Your task to perform on an android device: Go to Google maps Image 0: 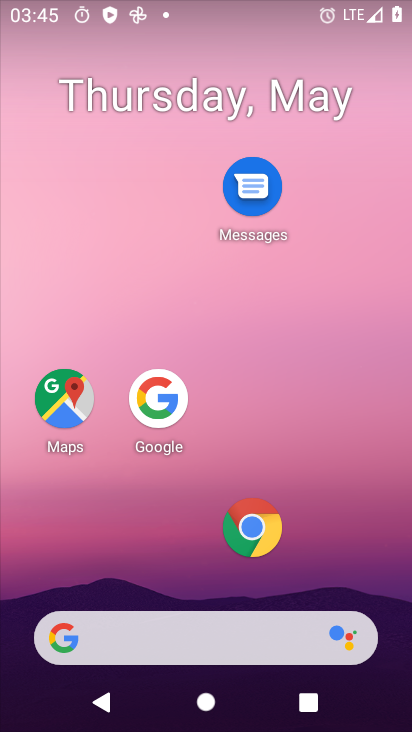
Step 0: click (174, 183)
Your task to perform on an android device: Go to Google maps Image 1: 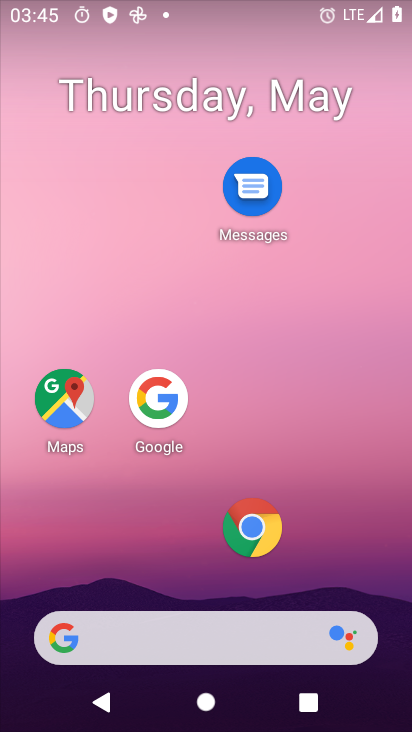
Step 1: drag from (174, 605) to (224, 257)
Your task to perform on an android device: Go to Google maps Image 2: 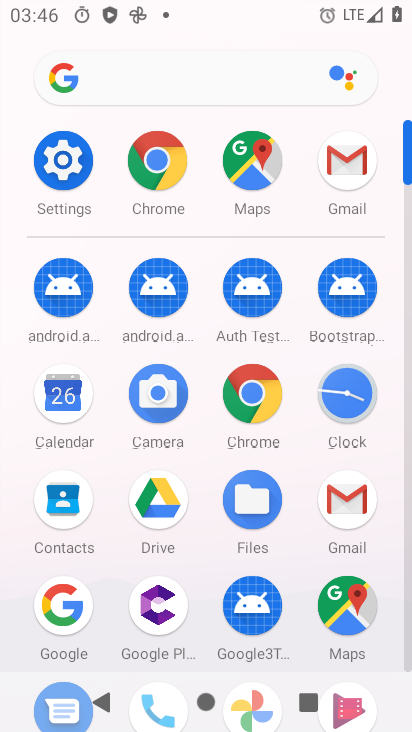
Step 2: click (338, 613)
Your task to perform on an android device: Go to Google maps Image 3: 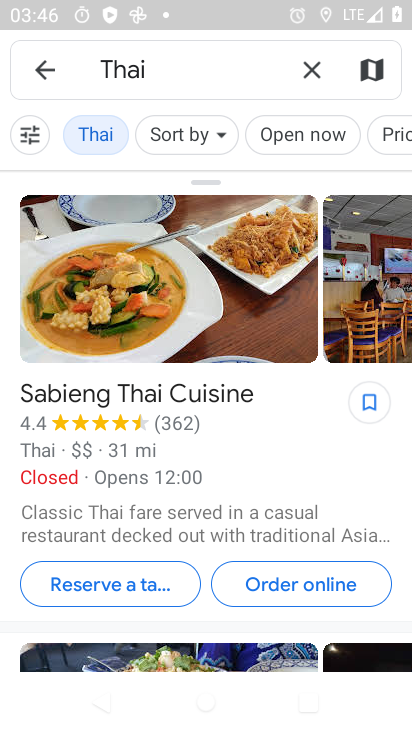
Step 3: task complete